Your task to perform on an android device: Open Google Maps Image 0: 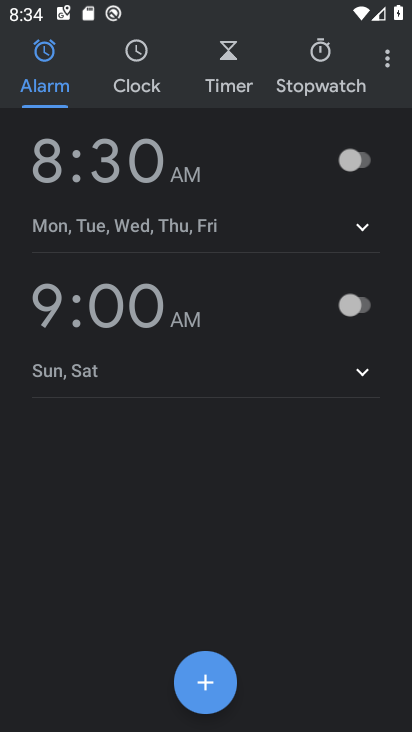
Step 0: press home button
Your task to perform on an android device: Open Google Maps Image 1: 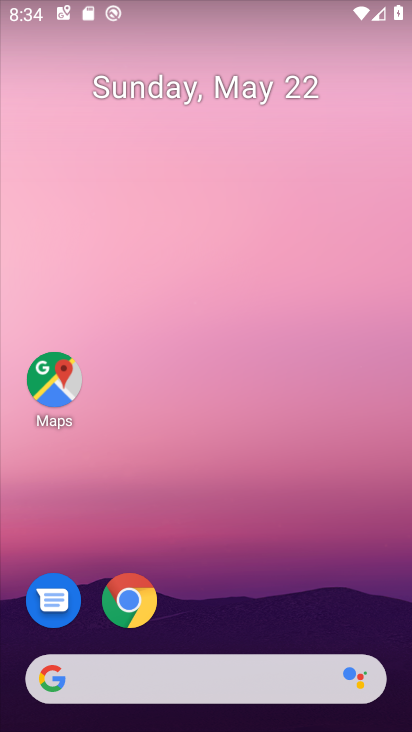
Step 1: click (71, 379)
Your task to perform on an android device: Open Google Maps Image 2: 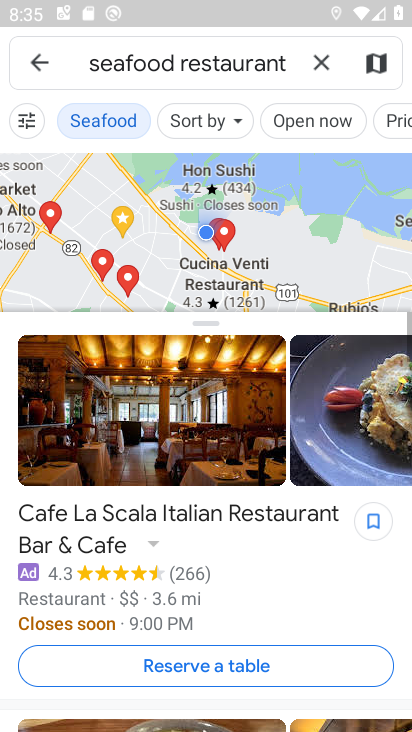
Step 2: click (315, 66)
Your task to perform on an android device: Open Google Maps Image 3: 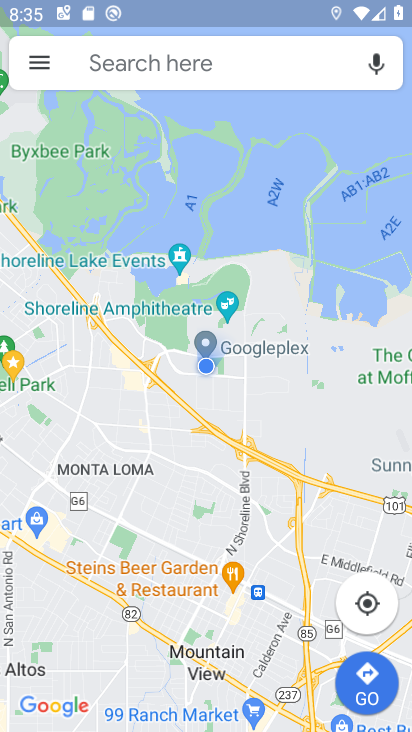
Step 3: task complete